Your task to perform on an android device: Add "logitech g pro" to the cart on target.com Image 0: 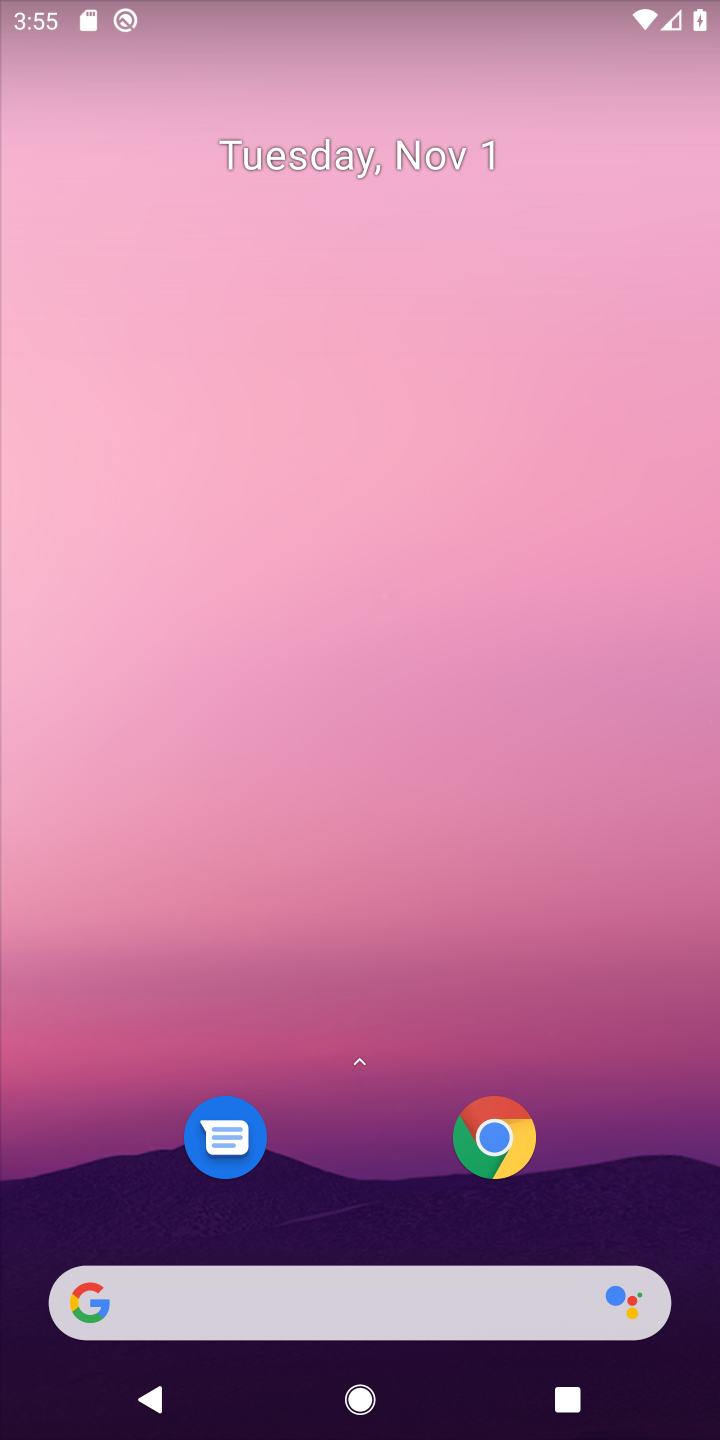
Step 0: press home button
Your task to perform on an android device: Add "logitech g pro" to the cart on target.com Image 1: 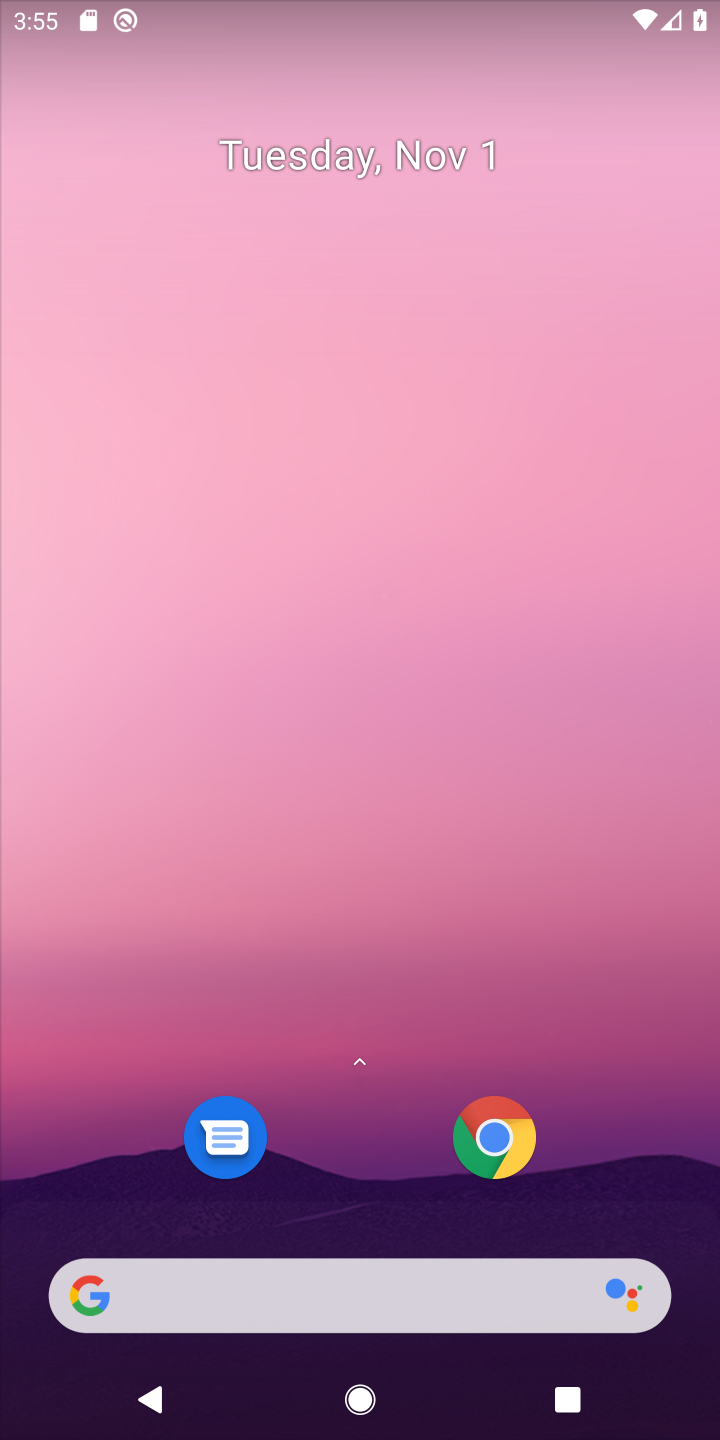
Step 1: click (296, 1313)
Your task to perform on an android device: Add "logitech g pro" to the cart on target.com Image 2: 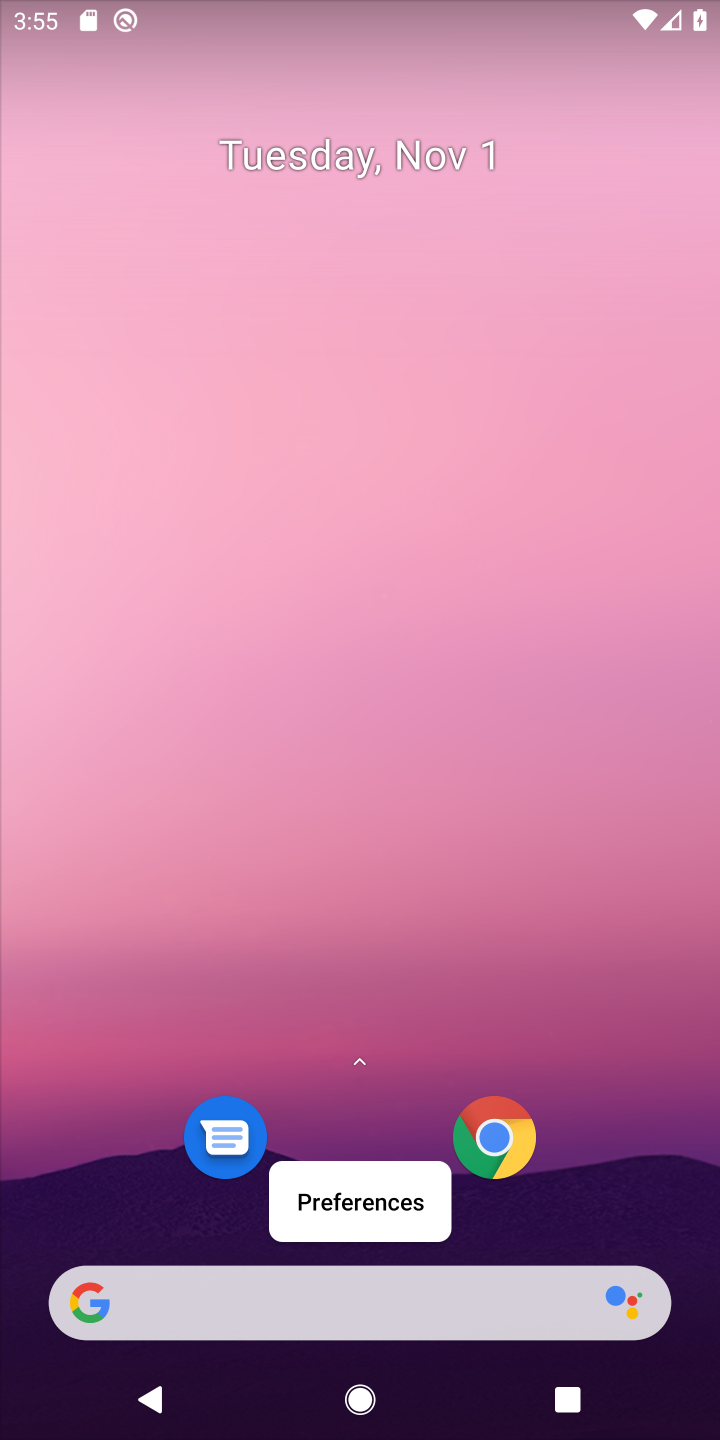
Step 2: click (543, 1288)
Your task to perform on an android device: Add "logitech g pro" to the cart on target.com Image 3: 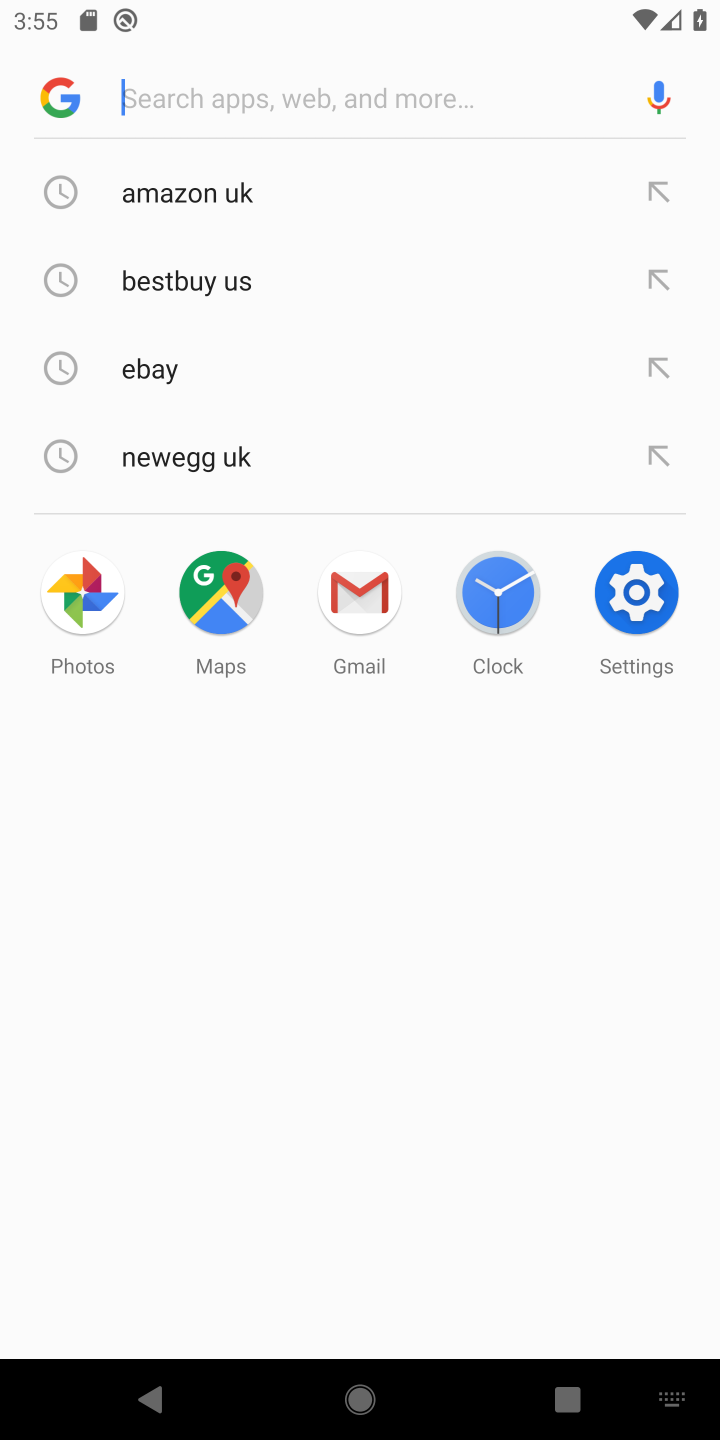
Step 3: click (171, 163)
Your task to perform on an android device: Add "logitech g pro" to the cart on target.com Image 4: 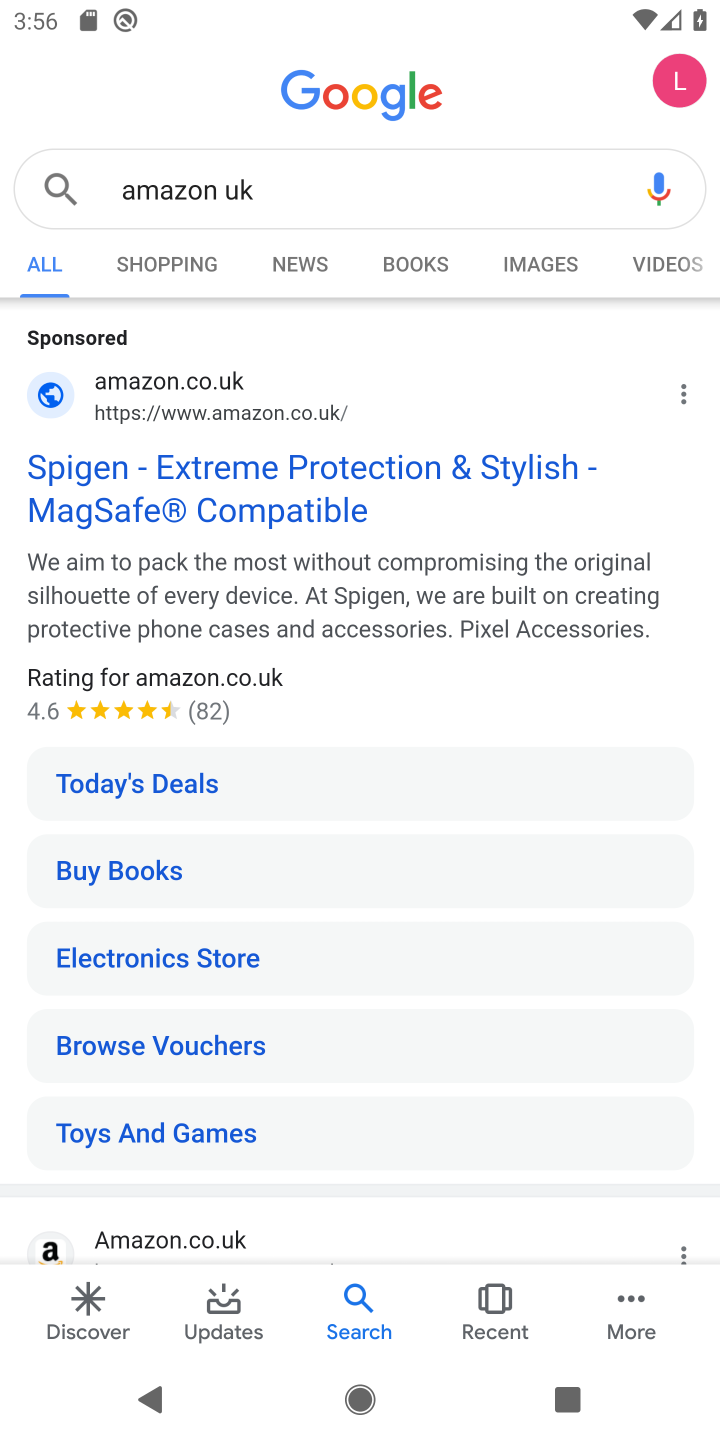
Step 4: click (243, 469)
Your task to perform on an android device: Add "logitech g pro" to the cart on target.com Image 5: 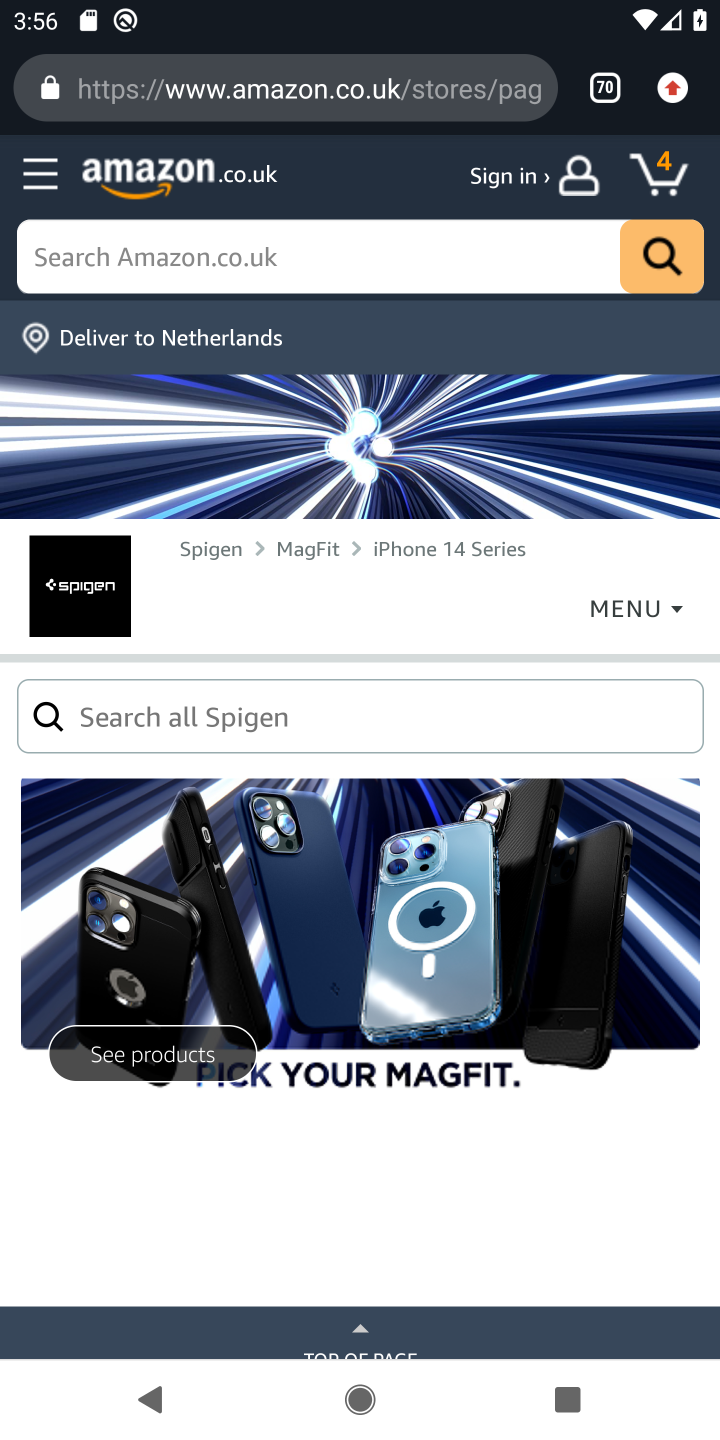
Step 5: task complete